Your task to perform on an android device: Open sound settings Image 0: 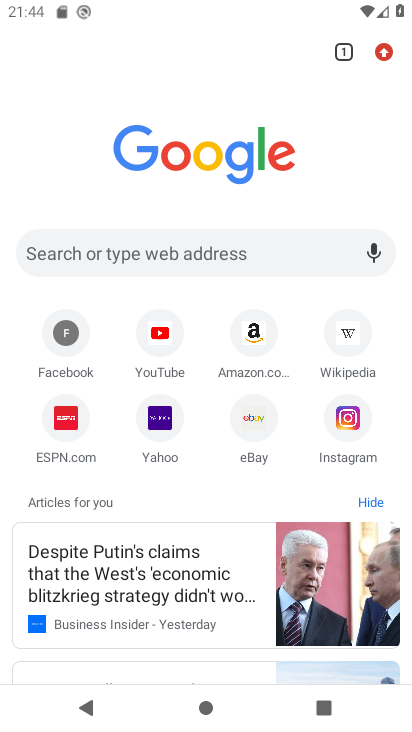
Step 0: press home button
Your task to perform on an android device: Open sound settings Image 1: 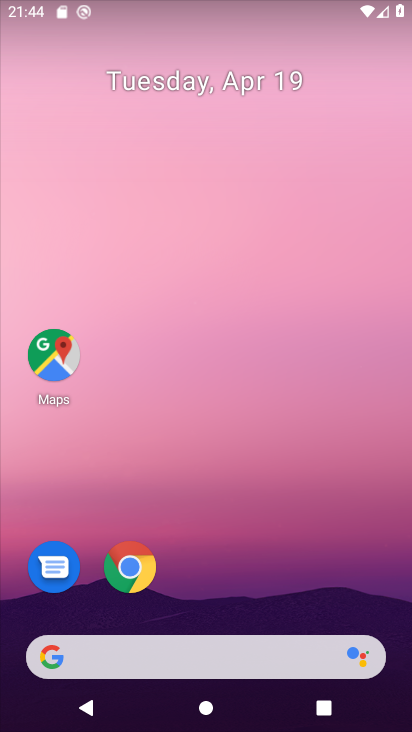
Step 1: drag from (192, 583) to (270, 55)
Your task to perform on an android device: Open sound settings Image 2: 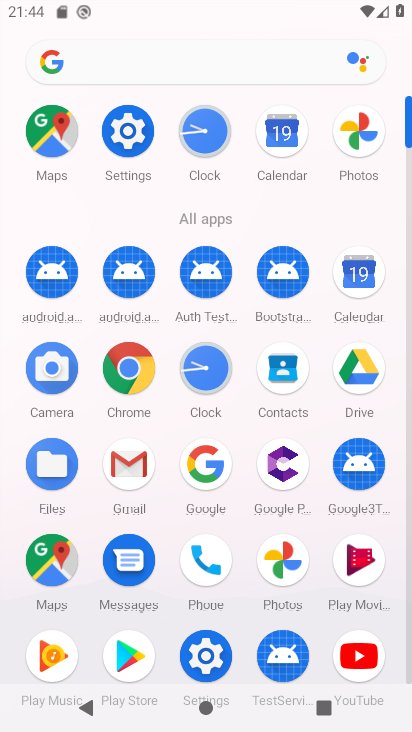
Step 2: click (134, 126)
Your task to perform on an android device: Open sound settings Image 3: 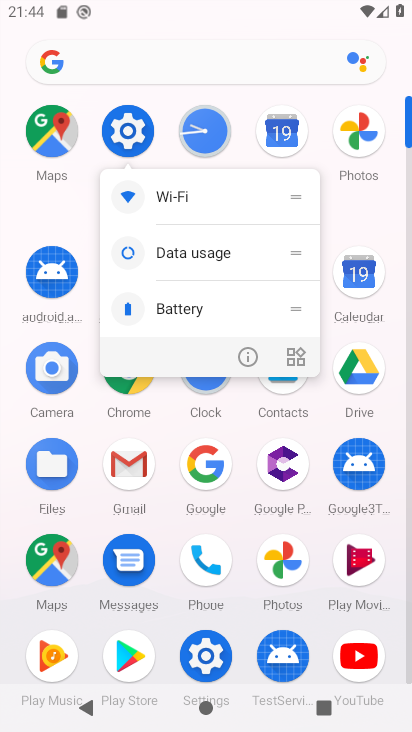
Step 3: click (132, 132)
Your task to perform on an android device: Open sound settings Image 4: 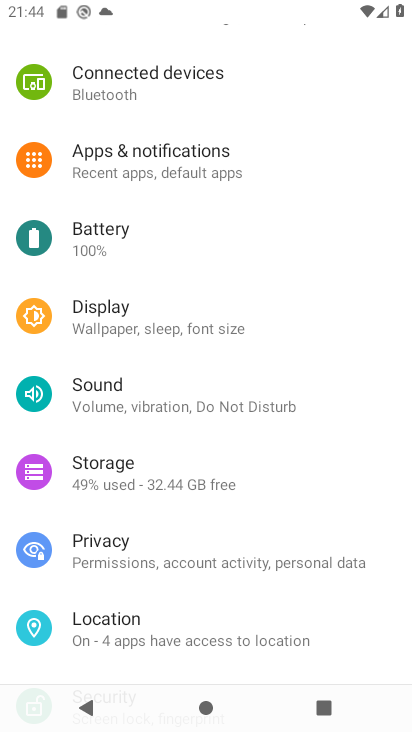
Step 4: click (169, 406)
Your task to perform on an android device: Open sound settings Image 5: 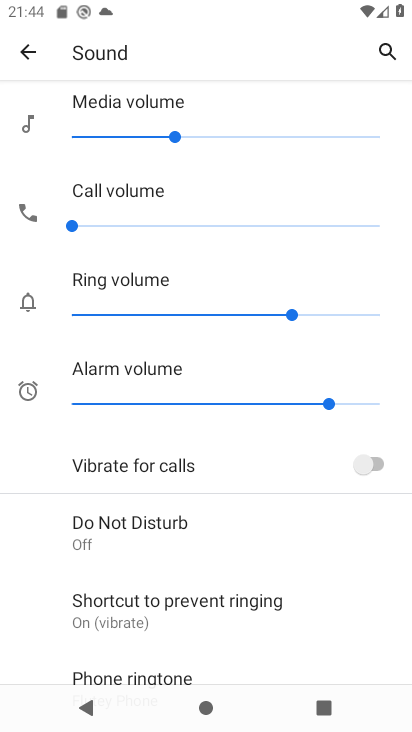
Step 5: task complete